Your task to perform on an android device: change your default location settings in chrome Image 0: 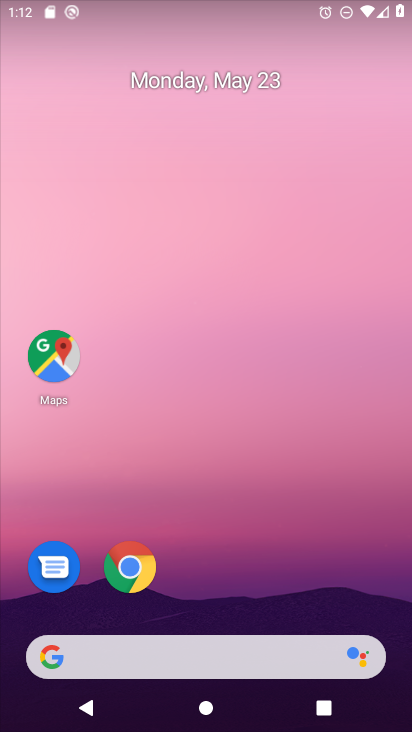
Step 0: click (134, 571)
Your task to perform on an android device: change your default location settings in chrome Image 1: 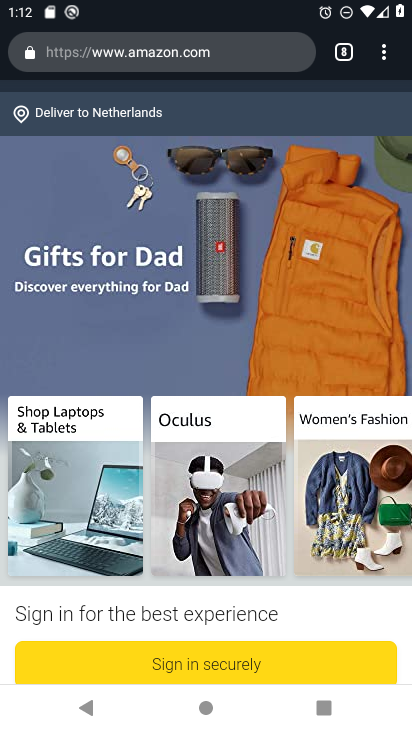
Step 1: click (392, 51)
Your task to perform on an android device: change your default location settings in chrome Image 2: 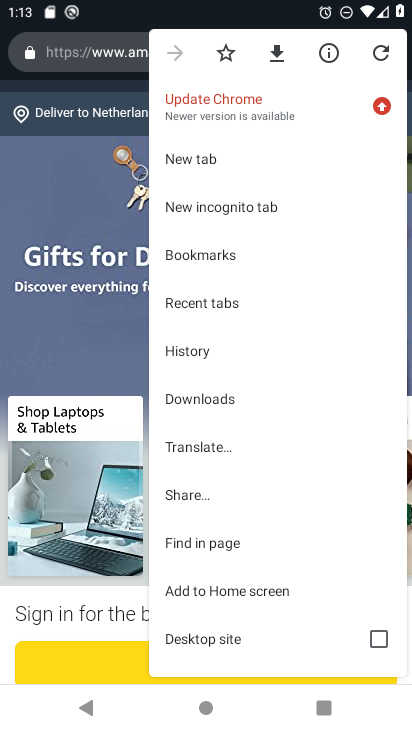
Step 2: drag from (213, 625) to (279, 179)
Your task to perform on an android device: change your default location settings in chrome Image 3: 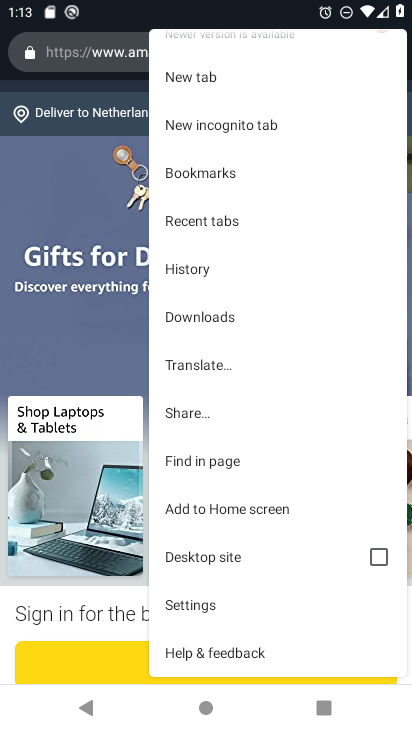
Step 3: click (238, 606)
Your task to perform on an android device: change your default location settings in chrome Image 4: 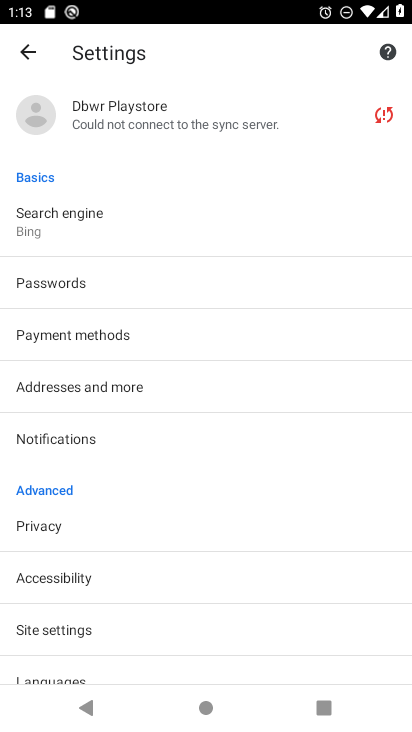
Step 4: drag from (115, 644) to (125, 318)
Your task to perform on an android device: change your default location settings in chrome Image 5: 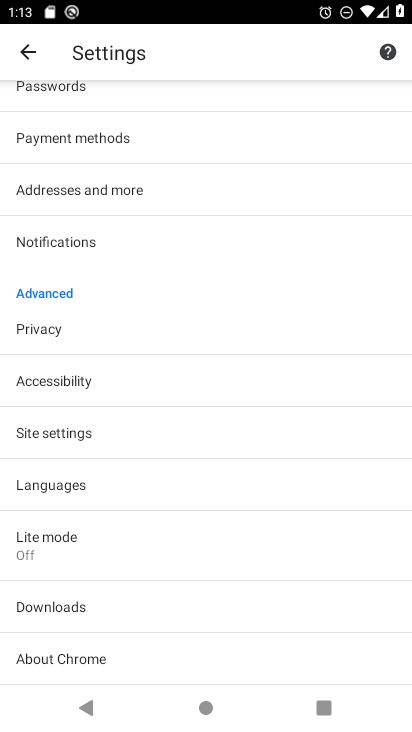
Step 5: click (57, 443)
Your task to perform on an android device: change your default location settings in chrome Image 6: 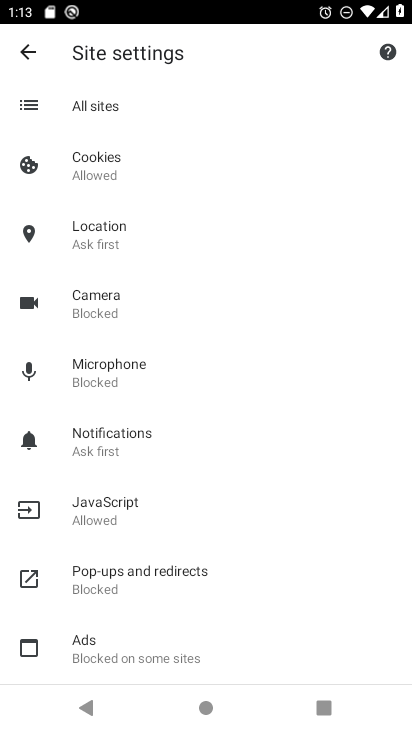
Step 6: click (61, 230)
Your task to perform on an android device: change your default location settings in chrome Image 7: 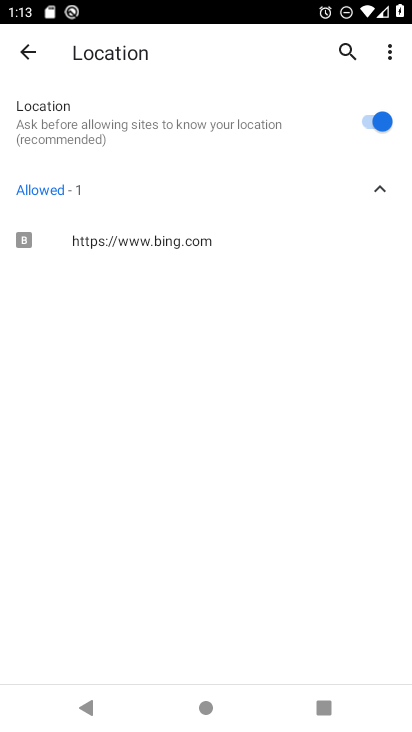
Step 7: click (377, 116)
Your task to perform on an android device: change your default location settings in chrome Image 8: 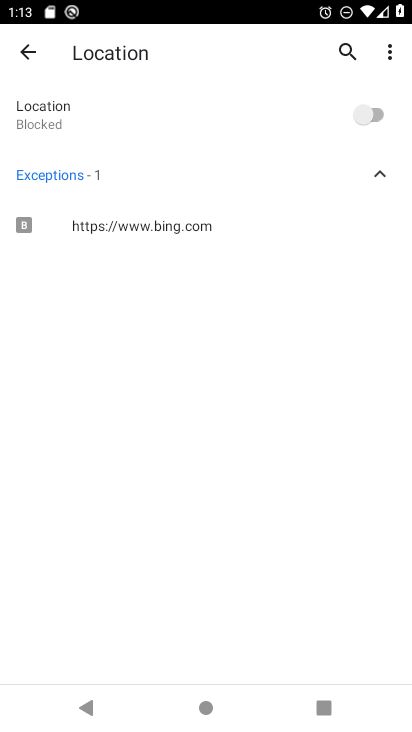
Step 8: task complete